Your task to perform on an android device: Open Youtube and go to the subscriptions tab Image 0: 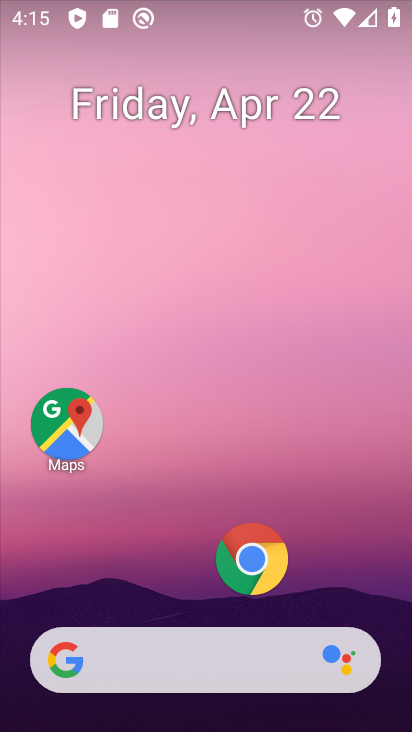
Step 0: drag from (152, 597) to (206, 71)
Your task to perform on an android device: Open Youtube and go to the subscriptions tab Image 1: 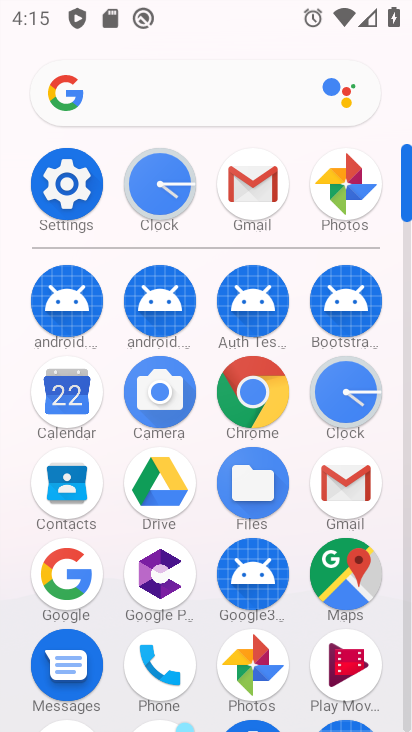
Step 1: drag from (190, 598) to (202, 374)
Your task to perform on an android device: Open Youtube and go to the subscriptions tab Image 2: 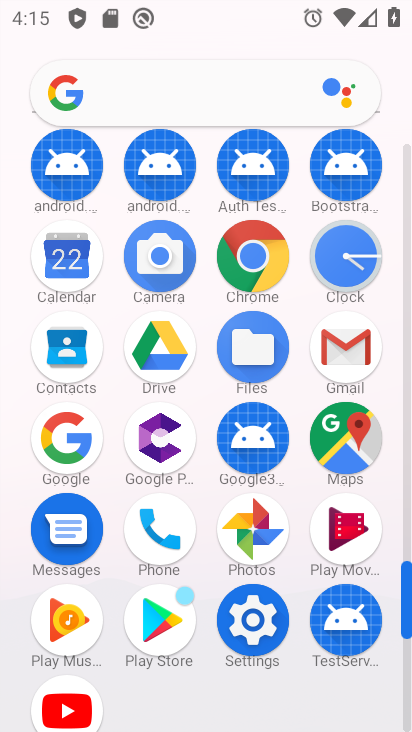
Step 2: click (65, 693)
Your task to perform on an android device: Open Youtube and go to the subscriptions tab Image 3: 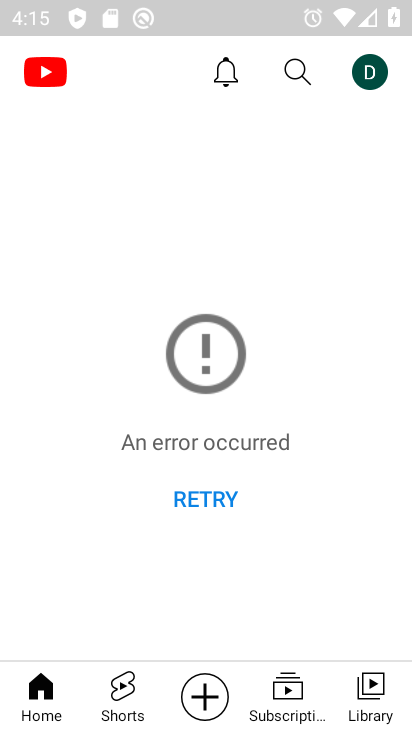
Step 3: click (275, 694)
Your task to perform on an android device: Open Youtube and go to the subscriptions tab Image 4: 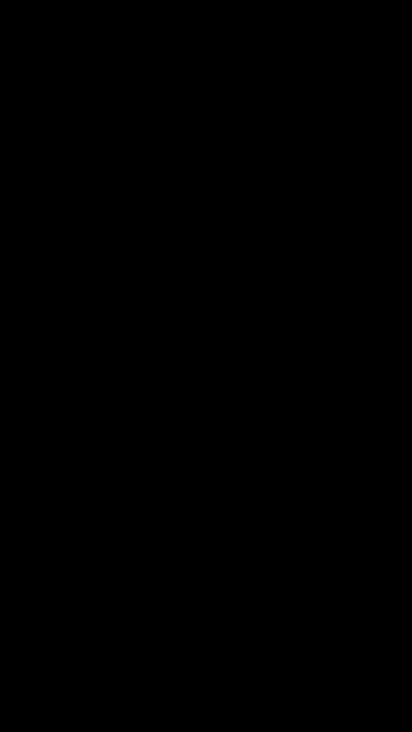
Step 4: task complete